Your task to perform on an android device: set default search engine in the chrome app Image 0: 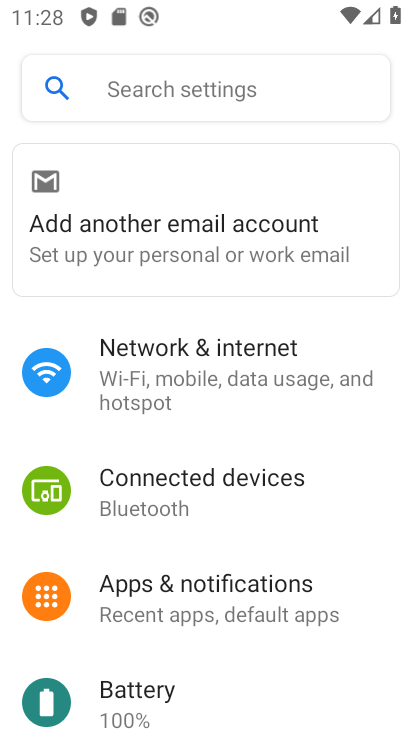
Step 0: press home button
Your task to perform on an android device: set default search engine in the chrome app Image 1: 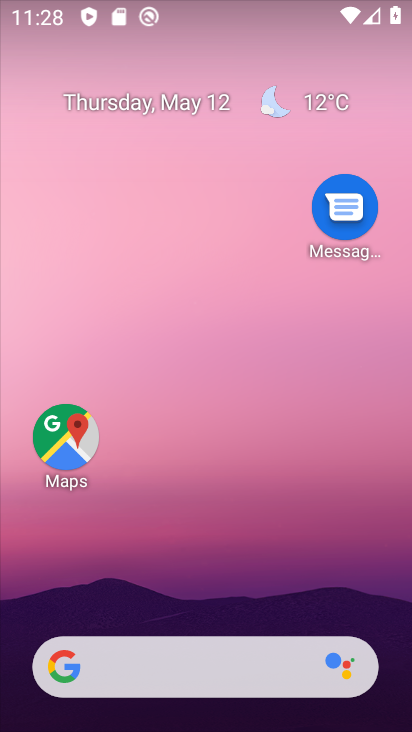
Step 1: drag from (266, 592) to (295, 13)
Your task to perform on an android device: set default search engine in the chrome app Image 2: 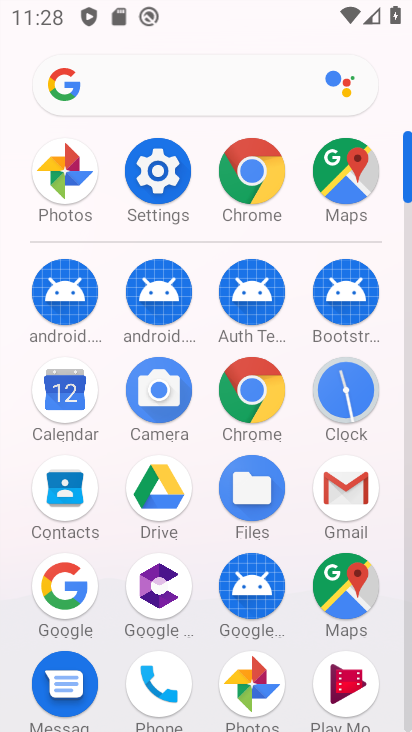
Step 2: click (273, 178)
Your task to perform on an android device: set default search engine in the chrome app Image 3: 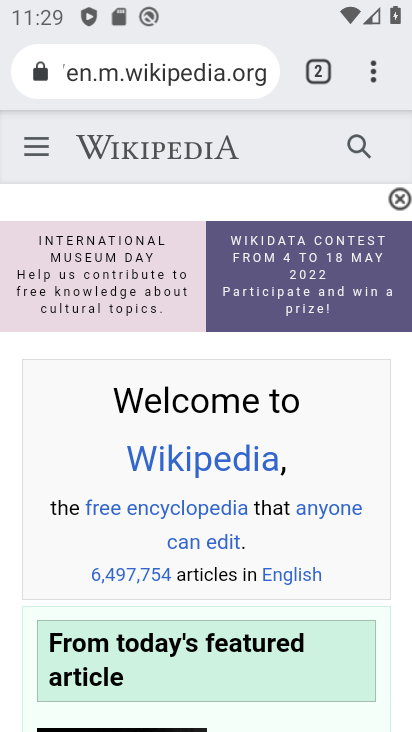
Step 3: drag from (375, 75) to (264, 579)
Your task to perform on an android device: set default search engine in the chrome app Image 4: 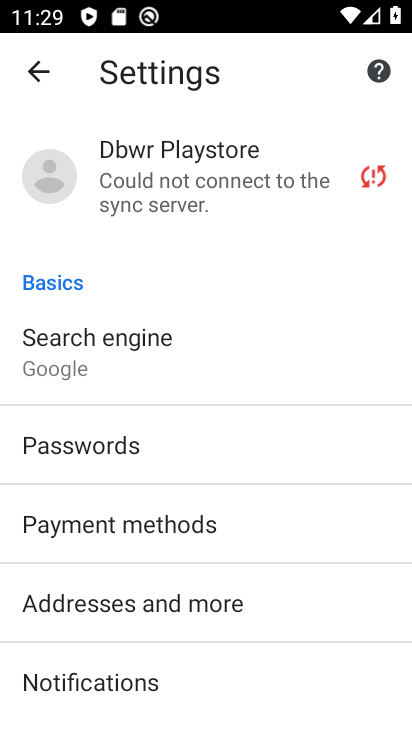
Step 4: click (121, 372)
Your task to perform on an android device: set default search engine in the chrome app Image 5: 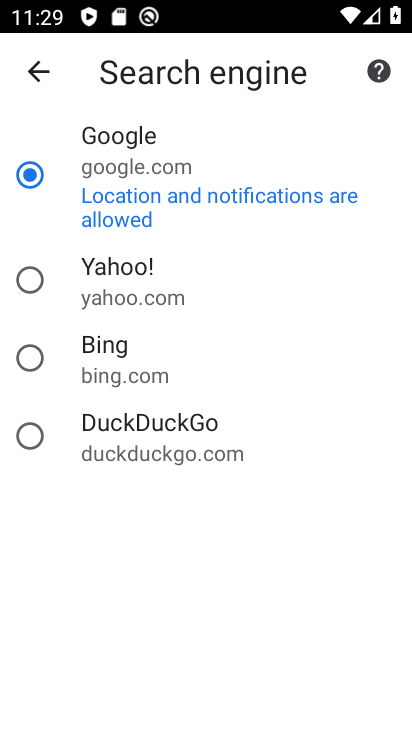
Step 5: task complete